Your task to perform on an android device: turn on the 12-hour format for clock Image 0: 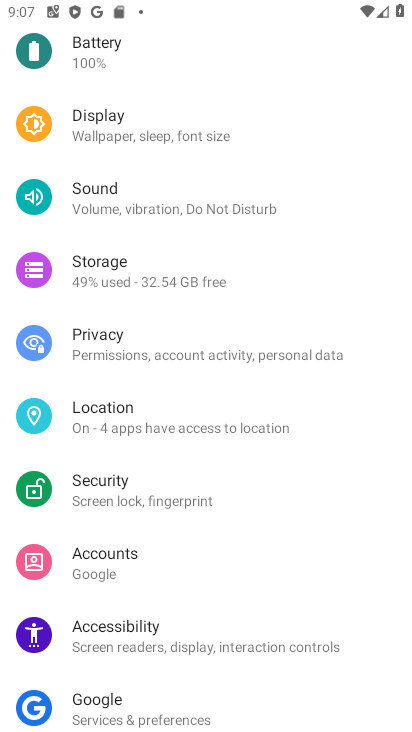
Step 0: press home button
Your task to perform on an android device: turn on the 12-hour format for clock Image 1: 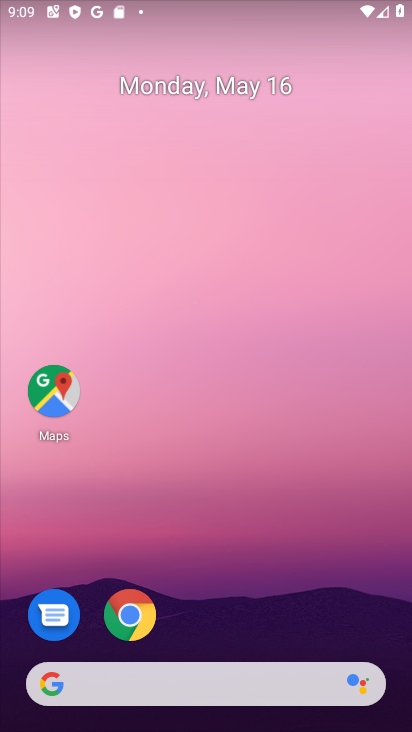
Step 1: drag from (27, 679) to (309, 155)
Your task to perform on an android device: turn on the 12-hour format for clock Image 2: 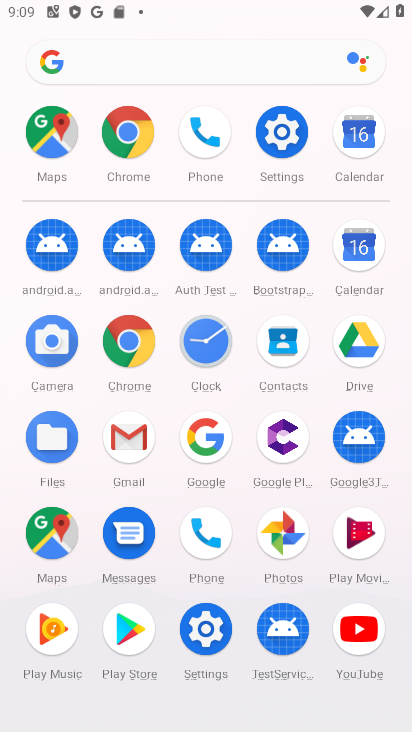
Step 2: click (211, 353)
Your task to perform on an android device: turn on the 12-hour format for clock Image 3: 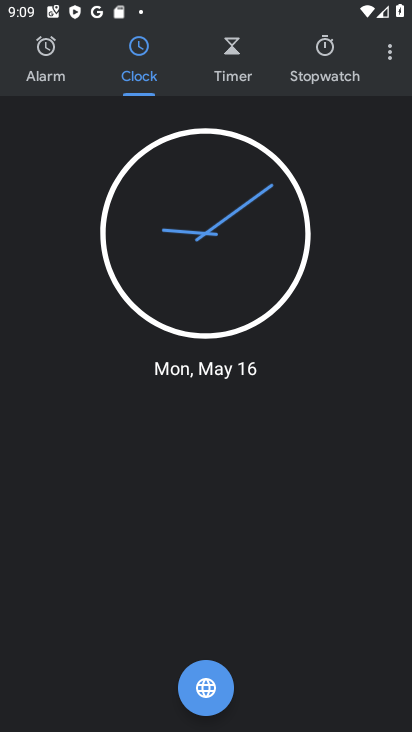
Step 3: click (383, 59)
Your task to perform on an android device: turn on the 12-hour format for clock Image 4: 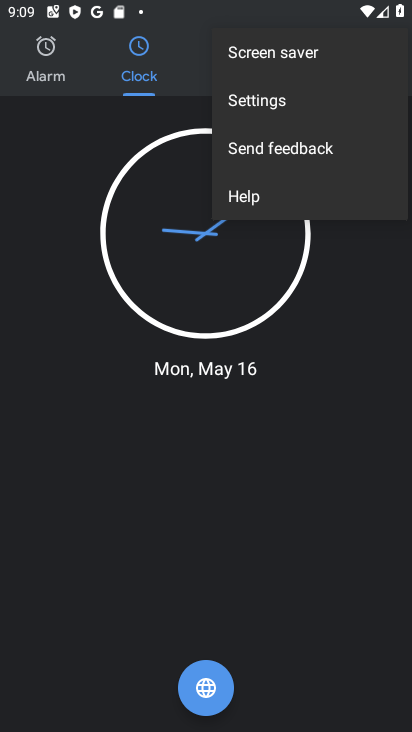
Step 4: click (233, 105)
Your task to perform on an android device: turn on the 12-hour format for clock Image 5: 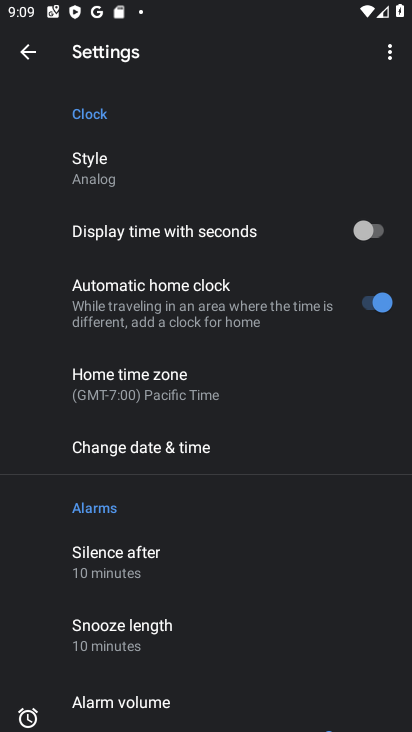
Step 5: click (171, 447)
Your task to perform on an android device: turn on the 12-hour format for clock Image 6: 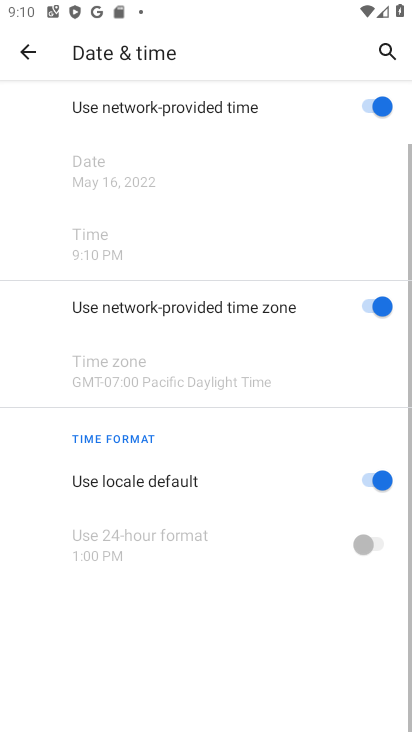
Step 6: task complete